Your task to perform on an android device: change text size in settings app Image 0: 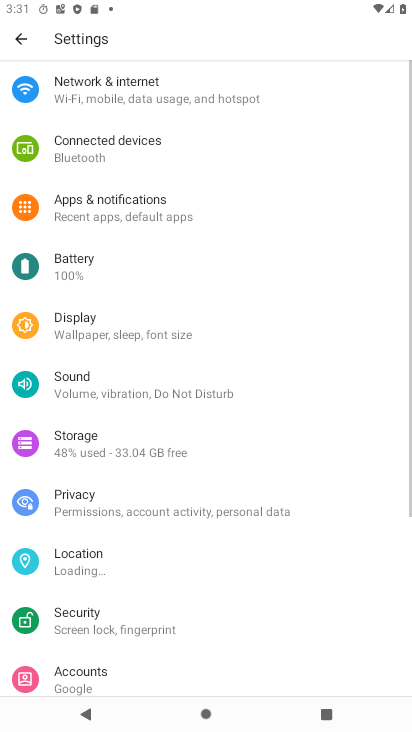
Step 0: press home button
Your task to perform on an android device: change text size in settings app Image 1: 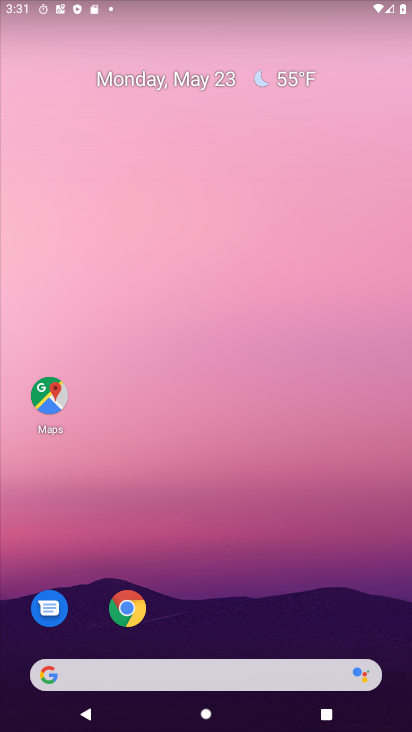
Step 1: drag from (343, 596) to (205, 21)
Your task to perform on an android device: change text size in settings app Image 2: 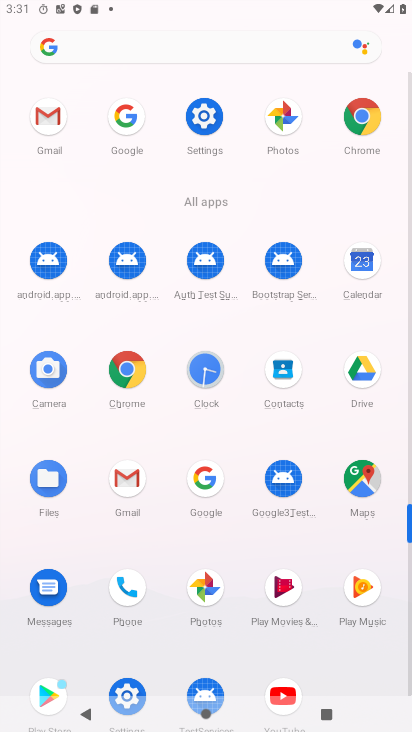
Step 2: click (208, 100)
Your task to perform on an android device: change text size in settings app Image 3: 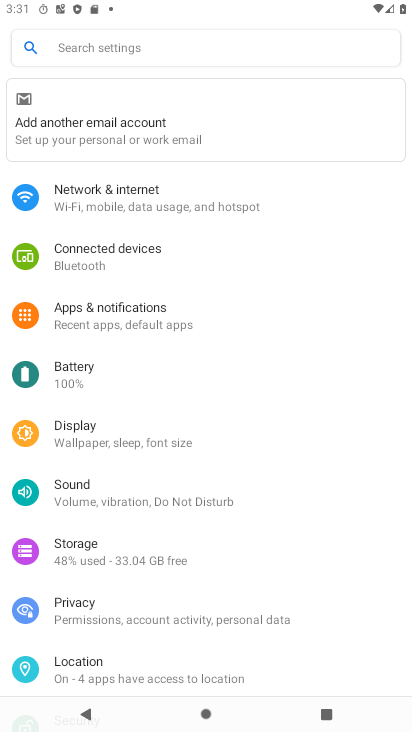
Step 3: click (165, 419)
Your task to perform on an android device: change text size in settings app Image 4: 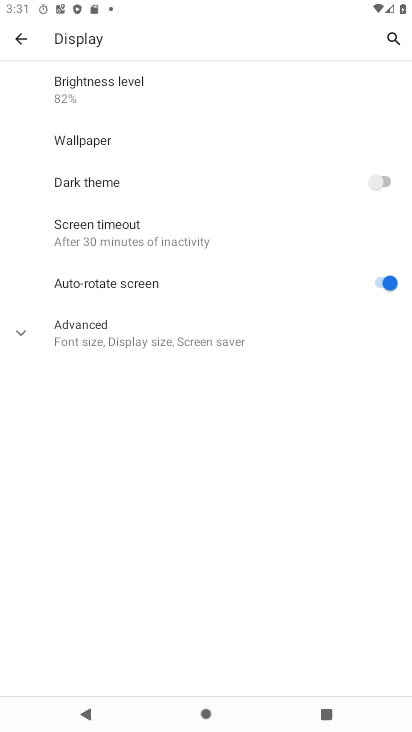
Step 4: click (150, 339)
Your task to perform on an android device: change text size in settings app Image 5: 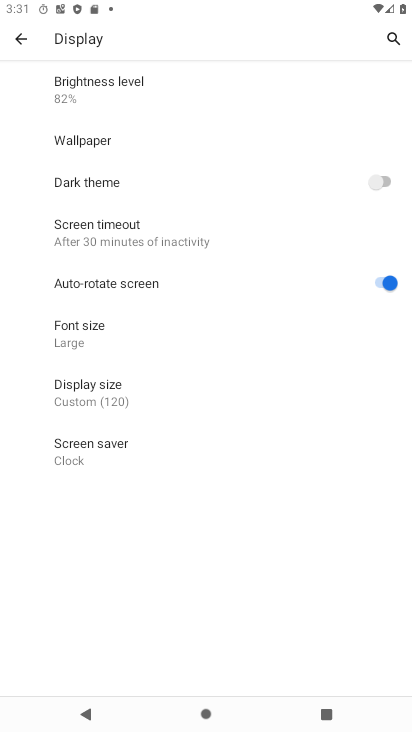
Step 5: click (123, 335)
Your task to perform on an android device: change text size in settings app Image 6: 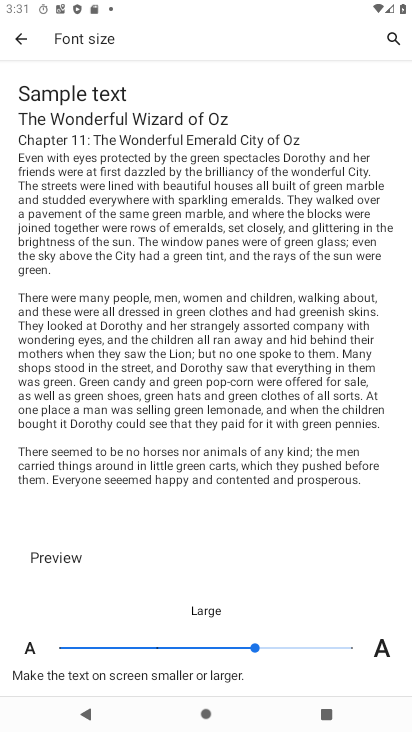
Step 6: click (347, 646)
Your task to perform on an android device: change text size in settings app Image 7: 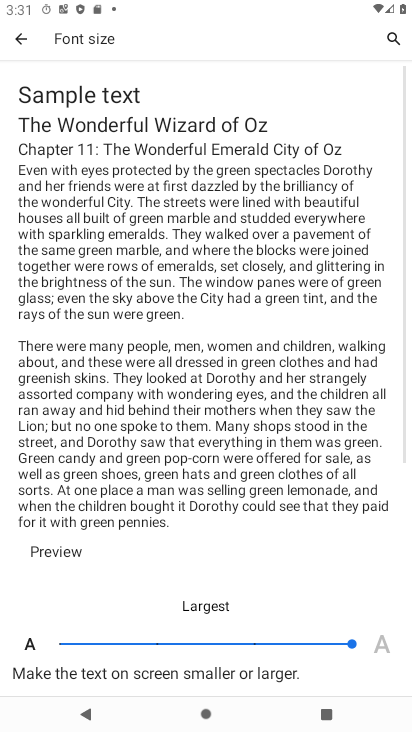
Step 7: task complete